Your task to perform on an android device: search for starred emails in the gmail app Image 0: 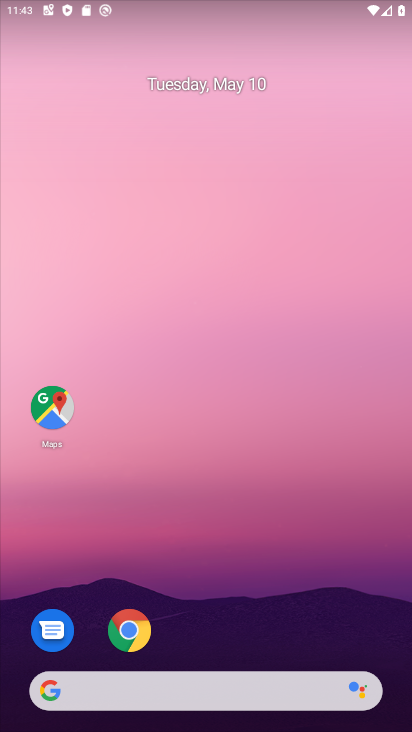
Step 0: drag from (273, 568) to (259, 220)
Your task to perform on an android device: search for starred emails in the gmail app Image 1: 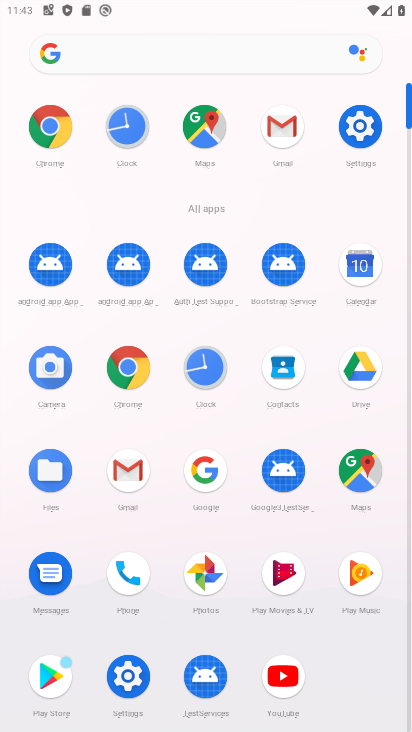
Step 1: click (288, 129)
Your task to perform on an android device: search for starred emails in the gmail app Image 2: 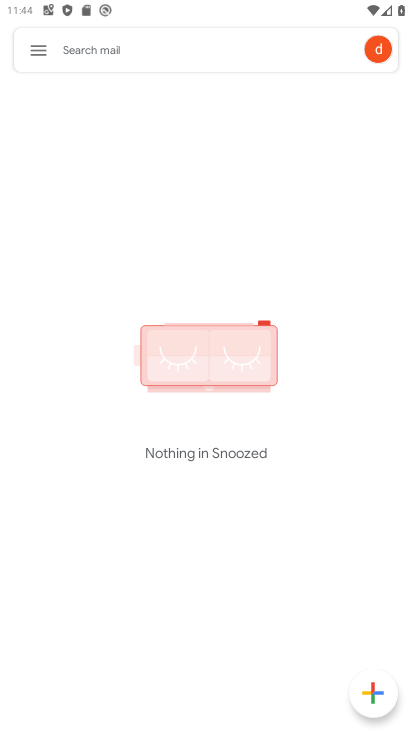
Step 2: click (35, 42)
Your task to perform on an android device: search for starred emails in the gmail app Image 3: 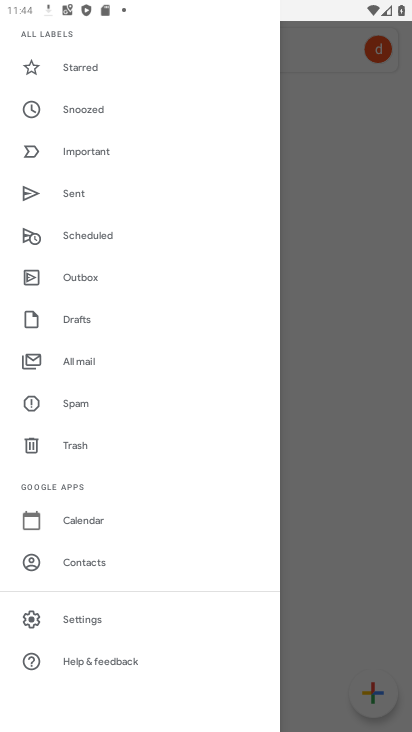
Step 3: click (87, 70)
Your task to perform on an android device: search for starred emails in the gmail app Image 4: 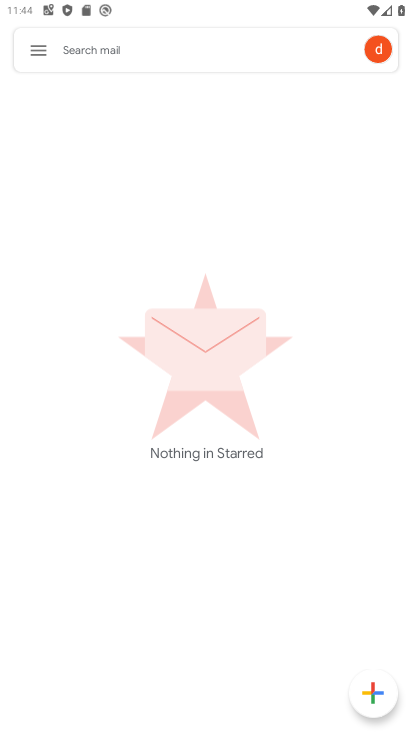
Step 4: task complete